Your task to perform on an android device: Go to wifi settings Image 0: 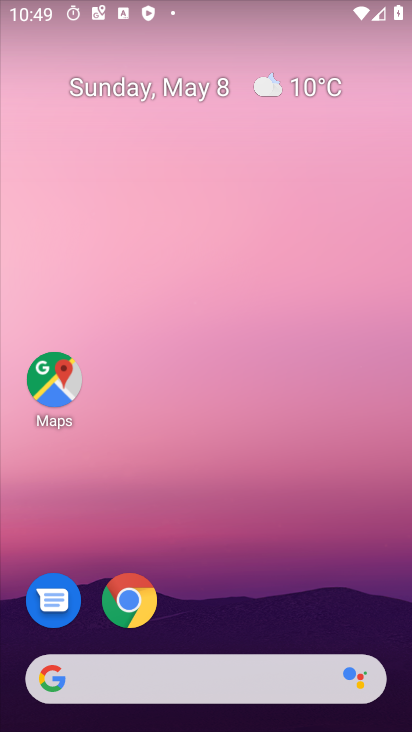
Step 0: drag from (326, 606) to (262, 22)
Your task to perform on an android device: Go to wifi settings Image 1: 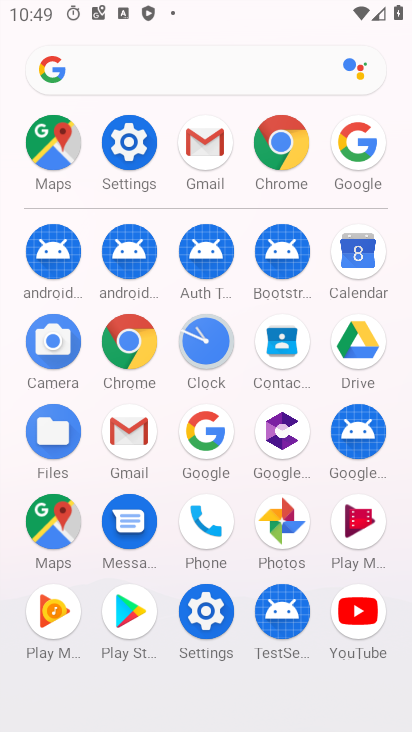
Step 1: click (141, 173)
Your task to perform on an android device: Go to wifi settings Image 2: 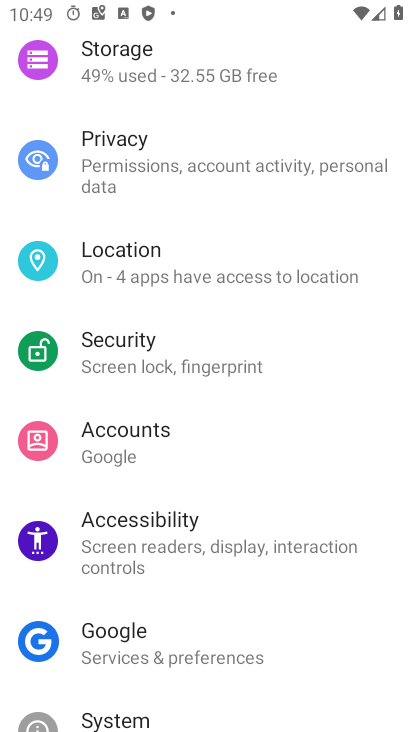
Step 2: drag from (164, 298) to (108, 611)
Your task to perform on an android device: Go to wifi settings Image 3: 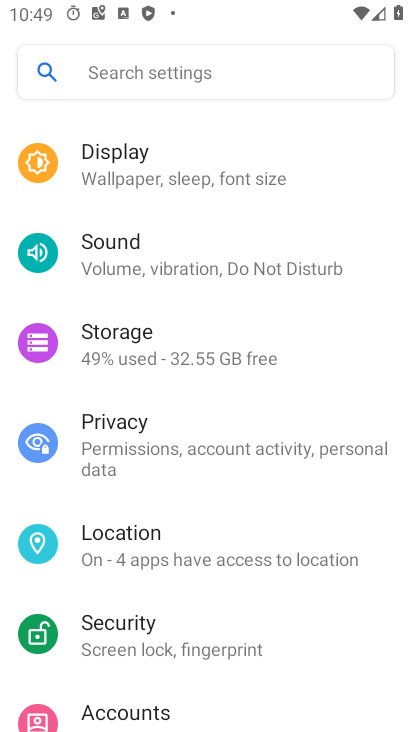
Step 3: drag from (195, 265) to (218, 552)
Your task to perform on an android device: Go to wifi settings Image 4: 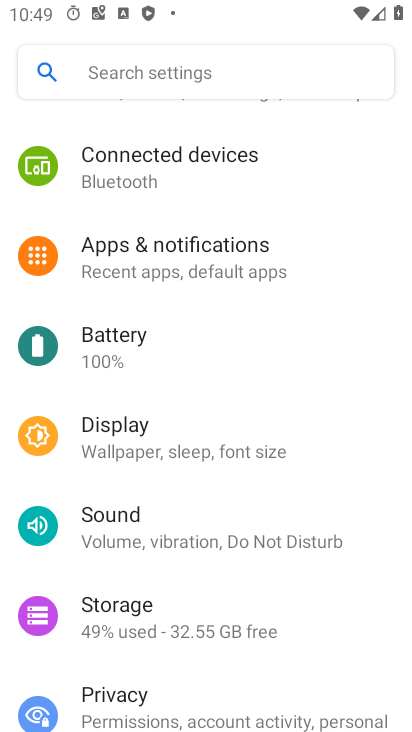
Step 4: drag from (252, 164) to (217, 435)
Your task to perform on an android device: Go to wifi settings Image 5: 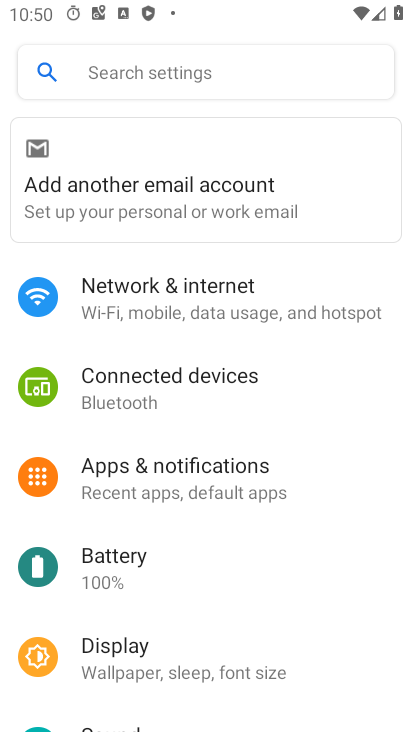
Step 5: click (186, 299)
Your task to perform on an android device: Go to wifi settings Image 6: 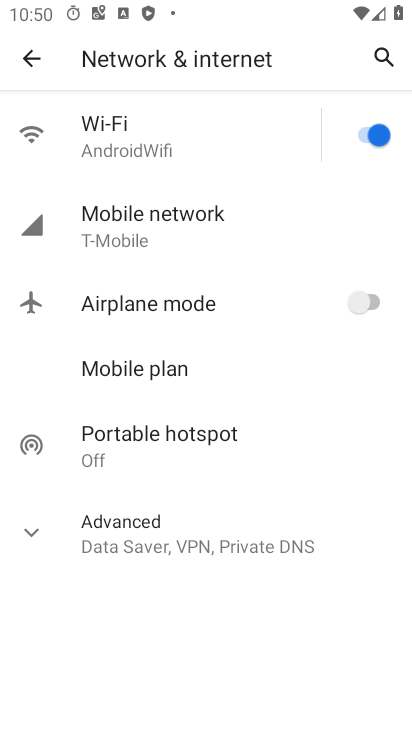
Step 6: click (146, 138)
Your task to perform on an android device: Go to wifi settings Image 7: 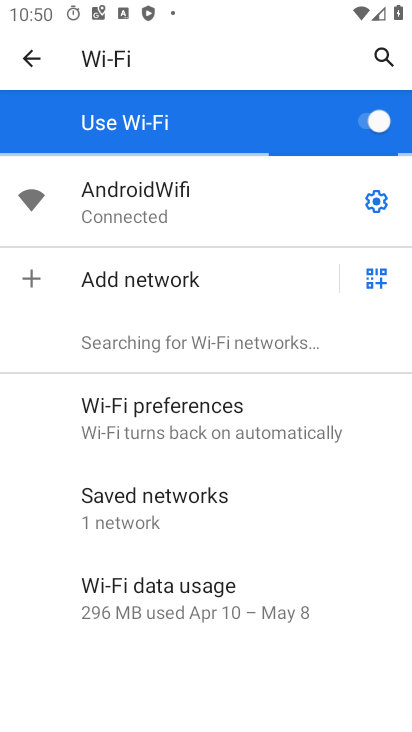
Step 7: task complete